Your task to perform on an android device: remove spam from my inbox in the gmail app Image 0: 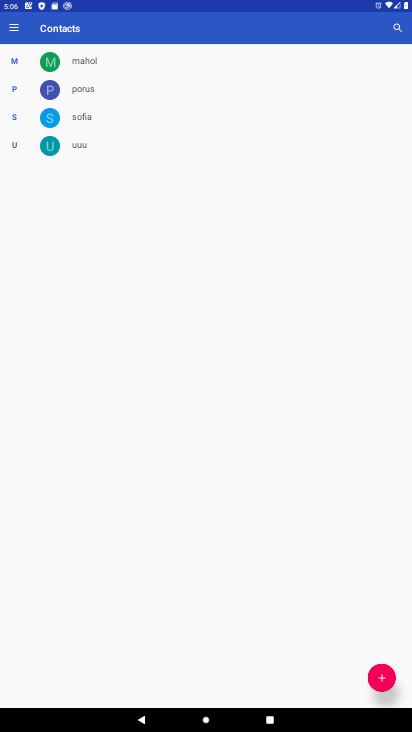
Step 0: press home button
Your task to perform on an android device: remove spam from my inbox in the gmail app Image 1: 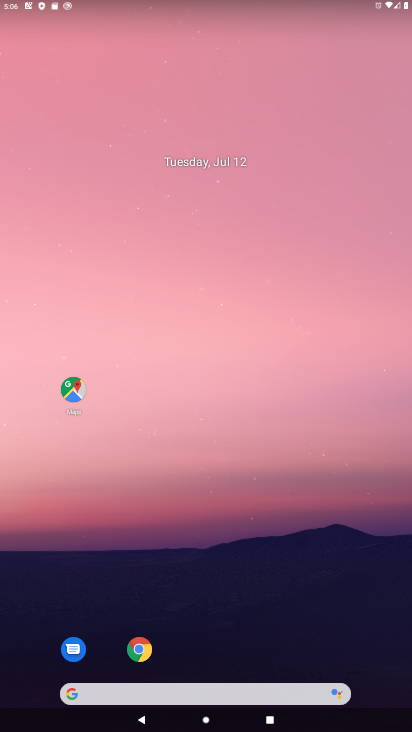
Step 1: drag from (228, 699) to (238, 110)
Your task to perform on an android device: remove spam from my inbox in the gmail app Image 2: 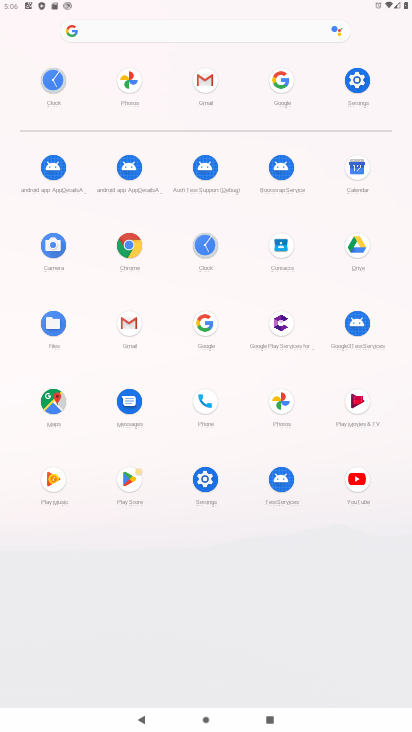
Step 2: click (204, 80)
Your task to perform on an android device: remove spam from my inbox in the gmail app Image 3: 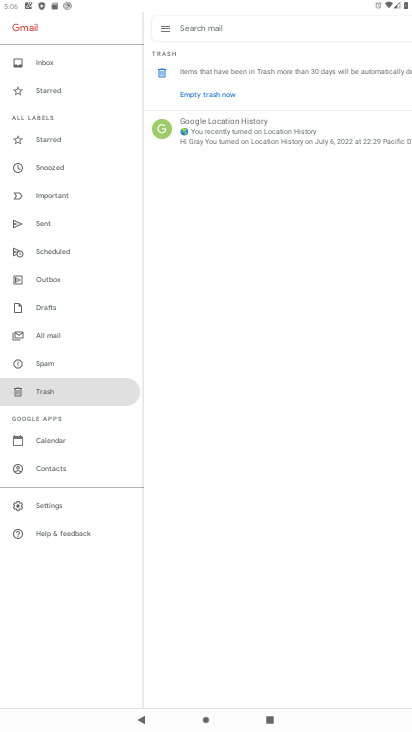
Step 3: click (42, 363)
Your task to perform on an android device: remove spam from my inbox in the gmail app Image 4: 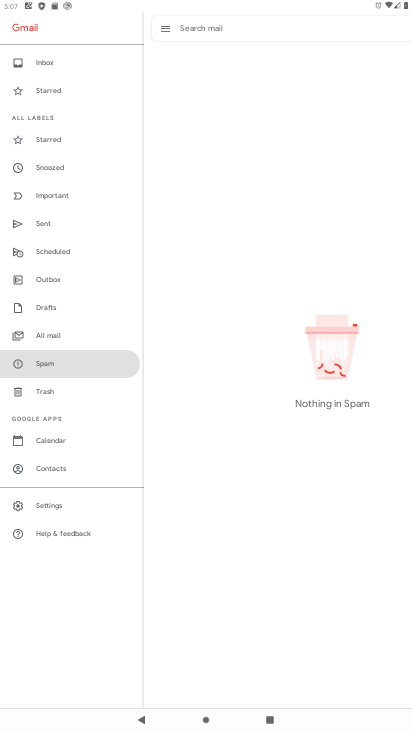
Step 4: task complete